Your task to perform on an android device: Go to privacy settings Image 0: 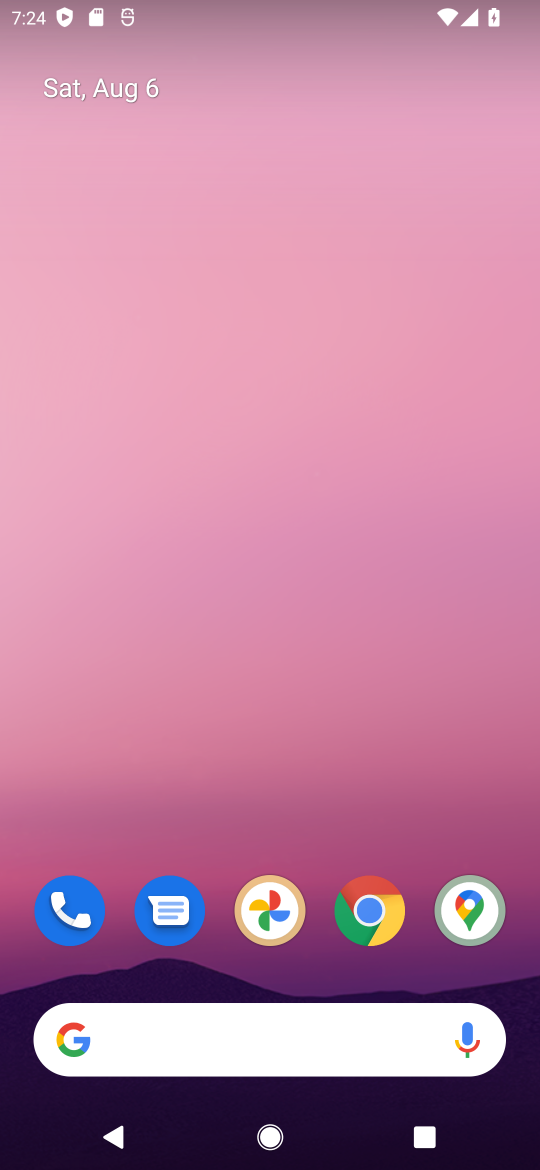
Step 0: drag from (529, 1048) to (453, 86)
Your task to perform on an android device: Go to privacy settings Image 1: 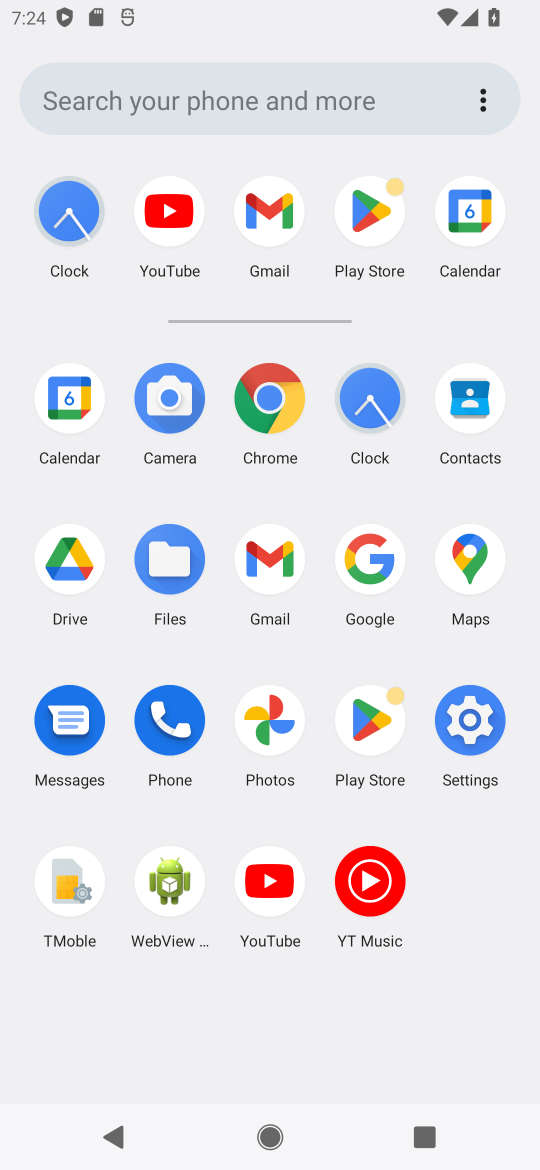
Step 1: click (466, 734)
Your task to perform on an android device: Go to privacy settings Image 2: 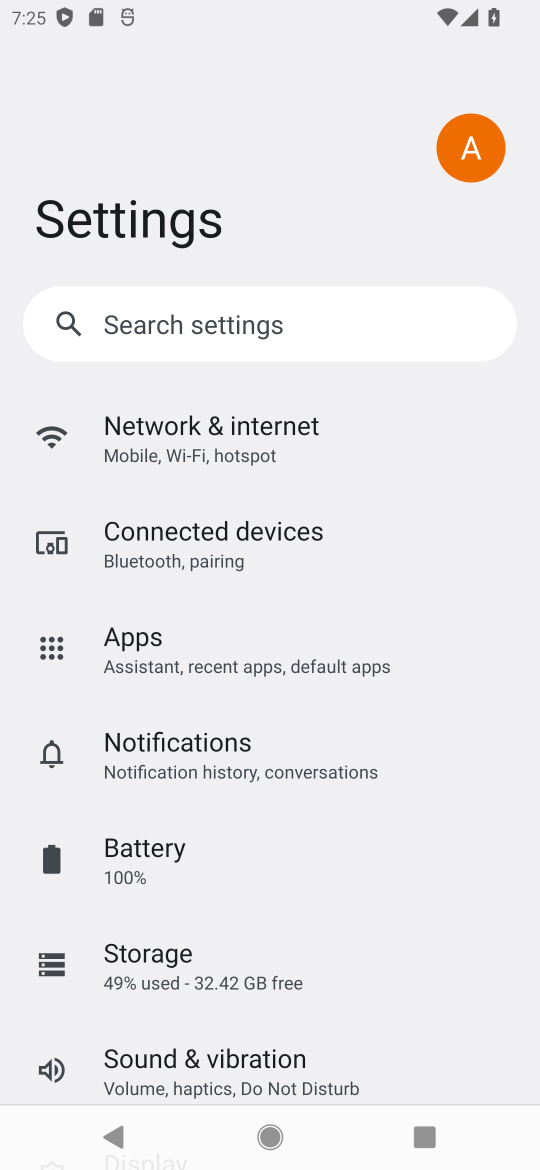
Step 2: drag from (365, 740) to (355, 372)
Your task to perform on an android device: Go to privacy settings Image 3: 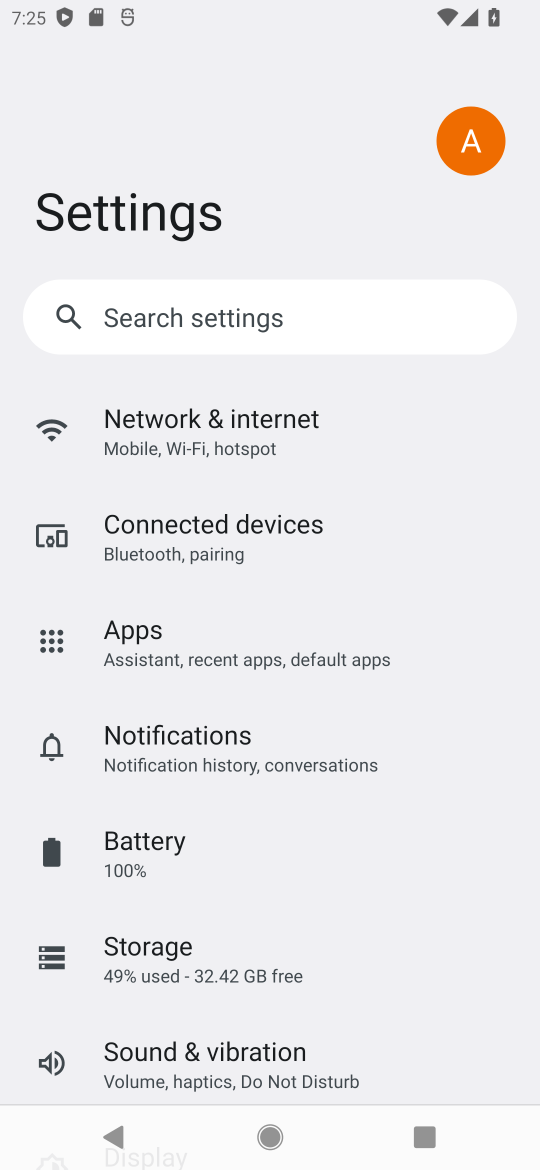
Step 3: drag from (426, 1018) to (405, 398)
Your task to perform on an android device: Go to privacy settings Image 4: 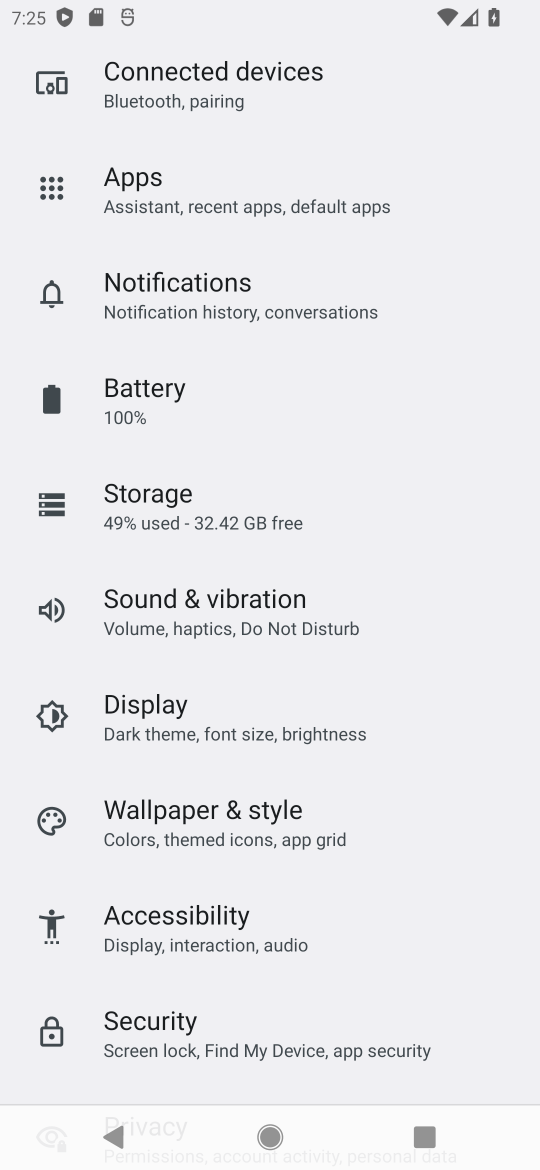
Step 4: drag from (425, 930) to (421, 333)
Your task to perform on an android device: Go to privacy settings Image 5: 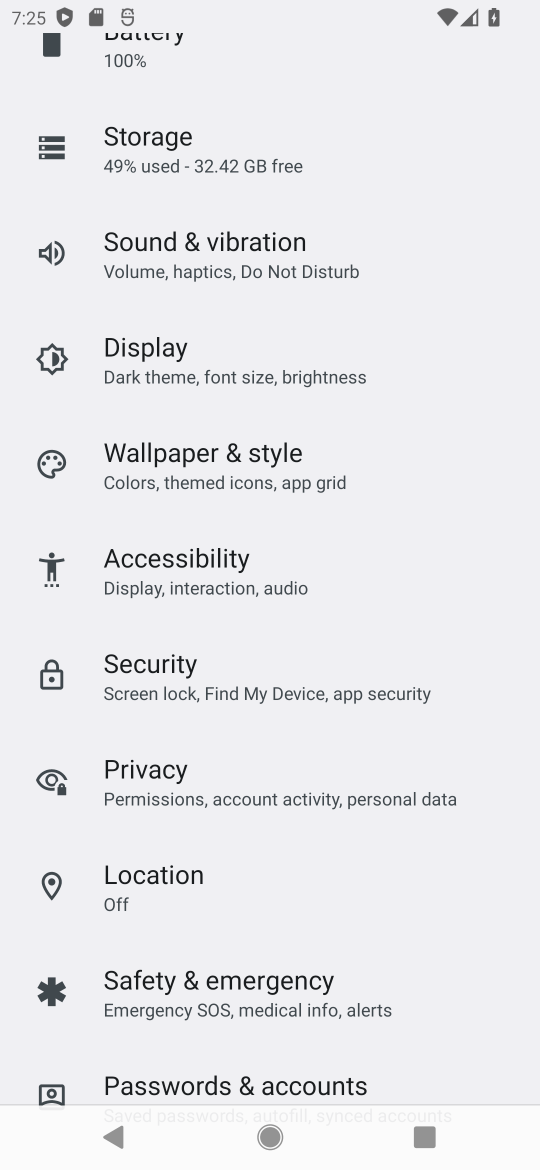
Step 5: click (151, 947)
Your task to perform on an android device: Go to privacy settings Image 6: 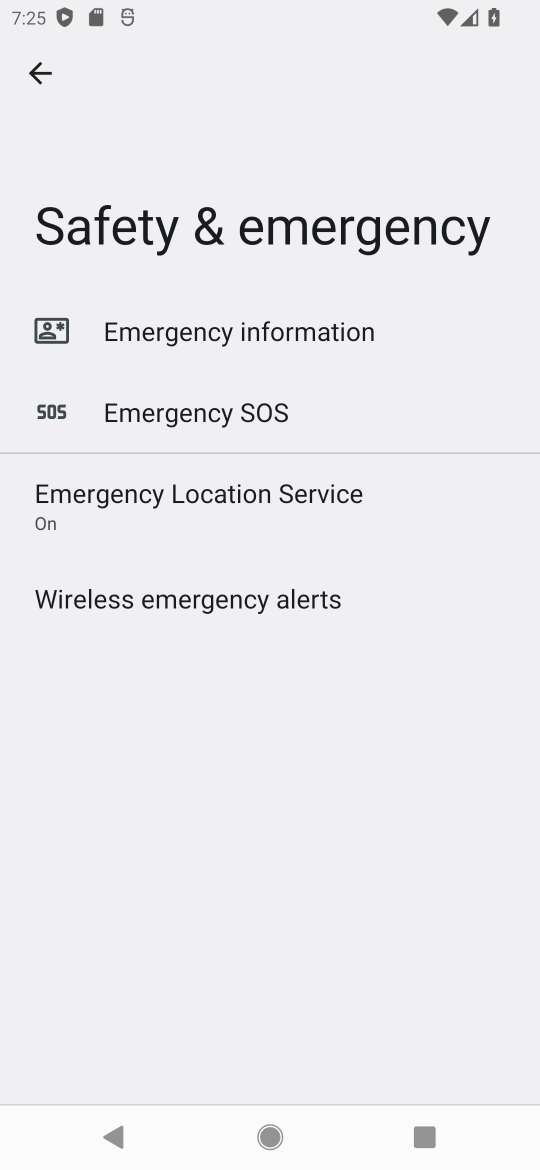
Step 6: task complete